Your task to perform on an android device: Add "sony triple a" to the cart on walmart, then select checkout. Image 0: 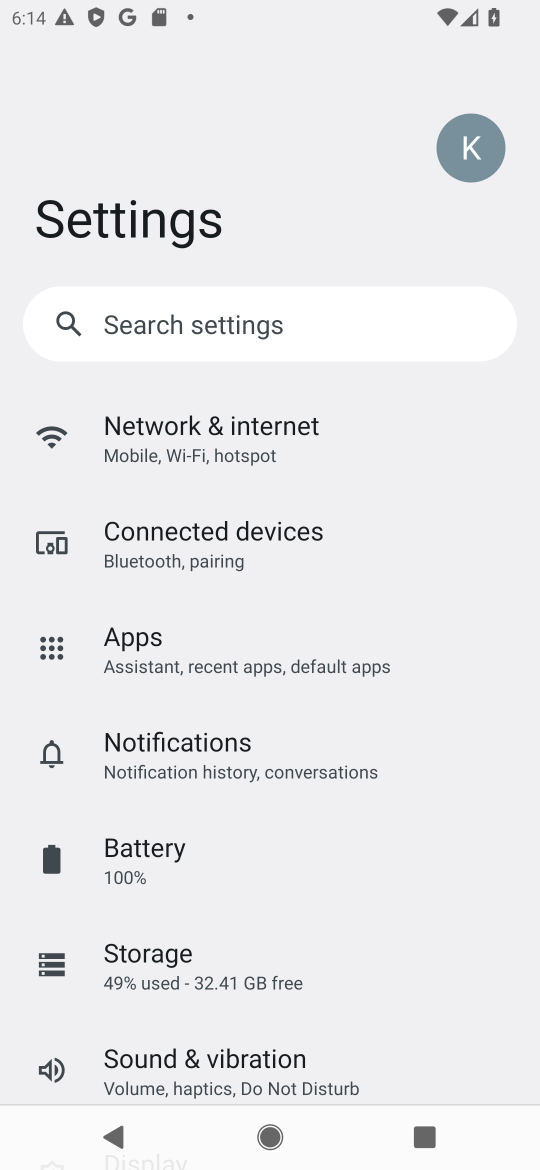
Step 0: press home button
Your task to perform on an android device: Add "sony triple a" to the cart on walmart, then select checkout. Image 1: 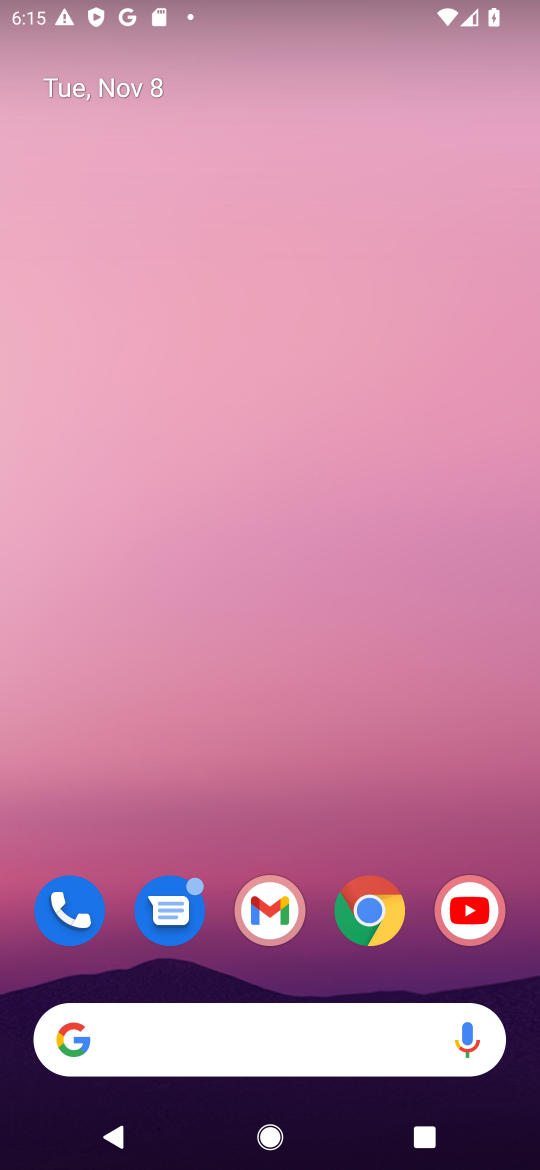
Step 1: click (368, 905)
Your task to perform on an android device: Add "sony triple a" to the cart on walmart, then select checkout. Image 2: 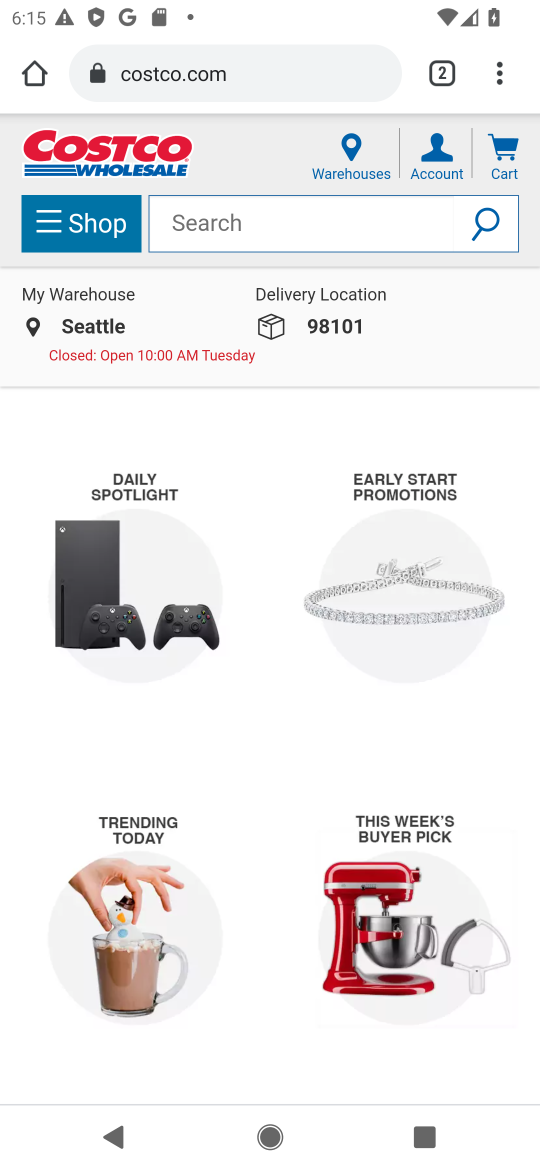
Step 2: click (449, 76)
Your task to perform on an android device: Add "sony triple a" to the cart on walmart, then select checkout. Image 3: 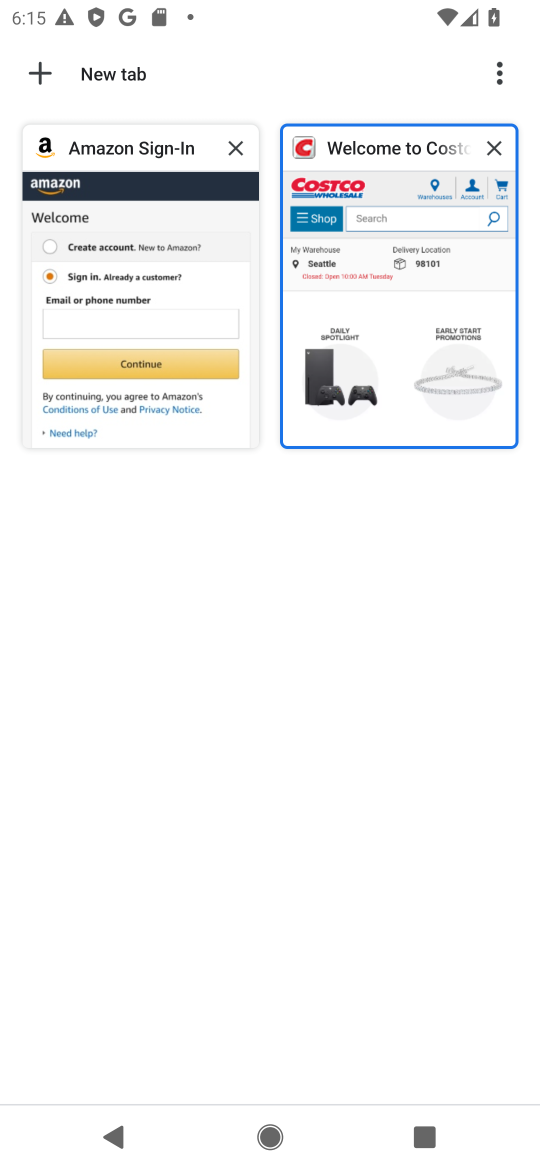
Step 3: click (40, 70)
Your task to perform on an android device: Add "sony triple a" to the cart on walmart, then select checkout. Image 4: 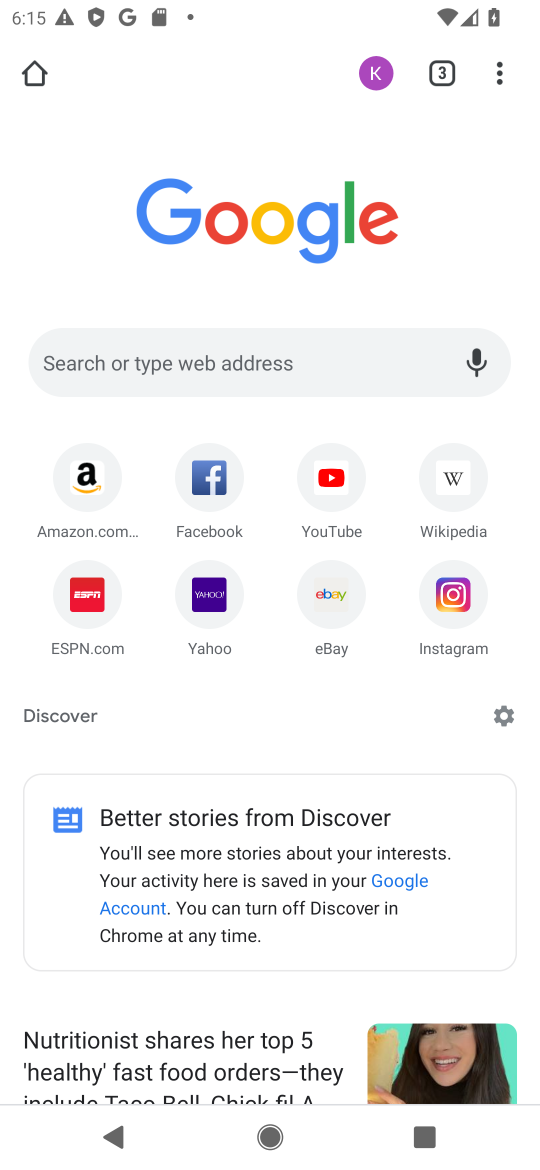
Step 4: click (256, 361)
Your task to perform on an android device: Add "sony triple a" to the cart on walmart, then select checkout. Image 5: 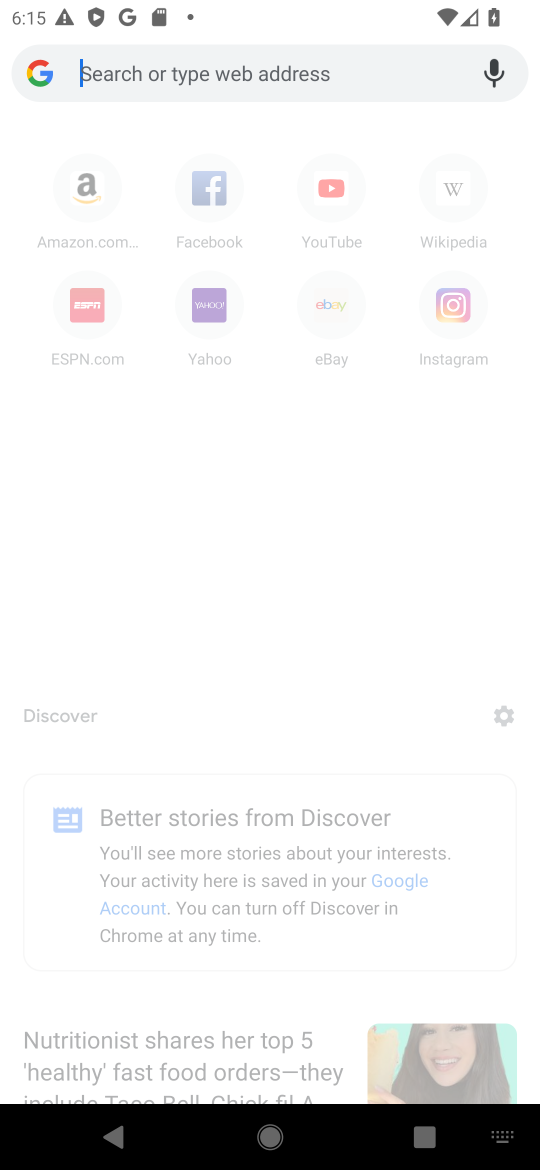
Step 5: type "walmart"
Your task to perform on an android device: Add "sony triple a" to the cart on walmart, then select checkout. Image 6: 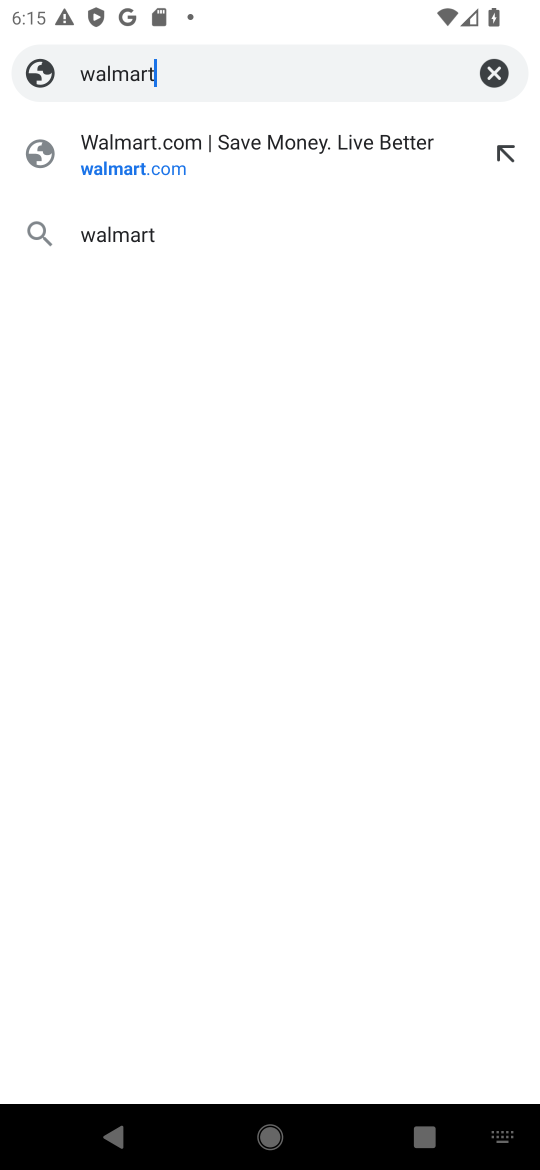
Step 6: click (114, 139)
Your task to perform on an android device: Add "sony triple a" to the cart on walmart, then select checkout. Image 7: 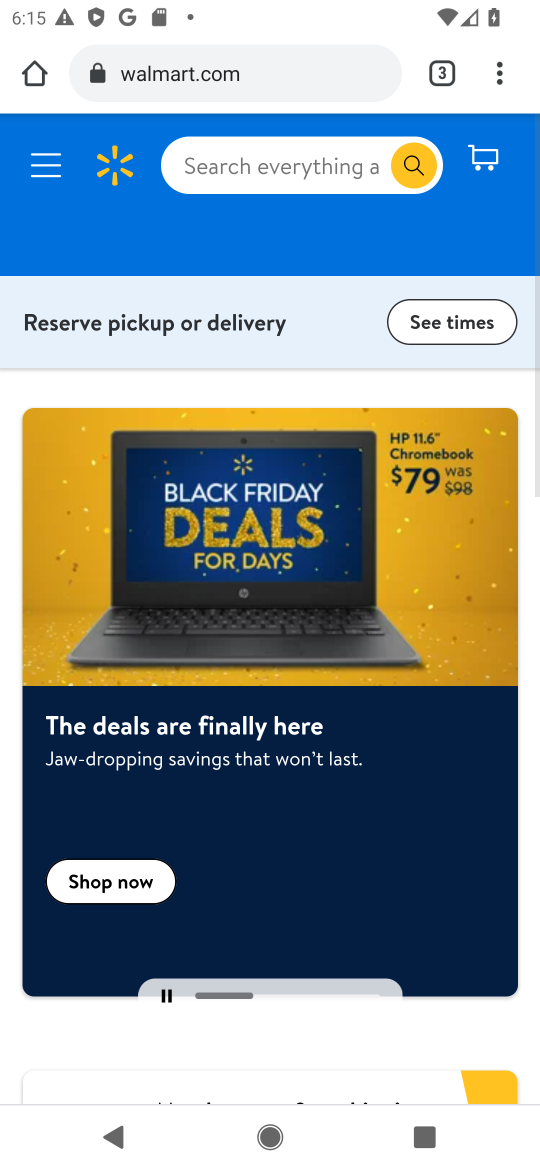
Step 7: click (207, 166)
Your task to perform on an android device: Add "sony triple a" to the cart on walmart, then select checkout. Image 8: 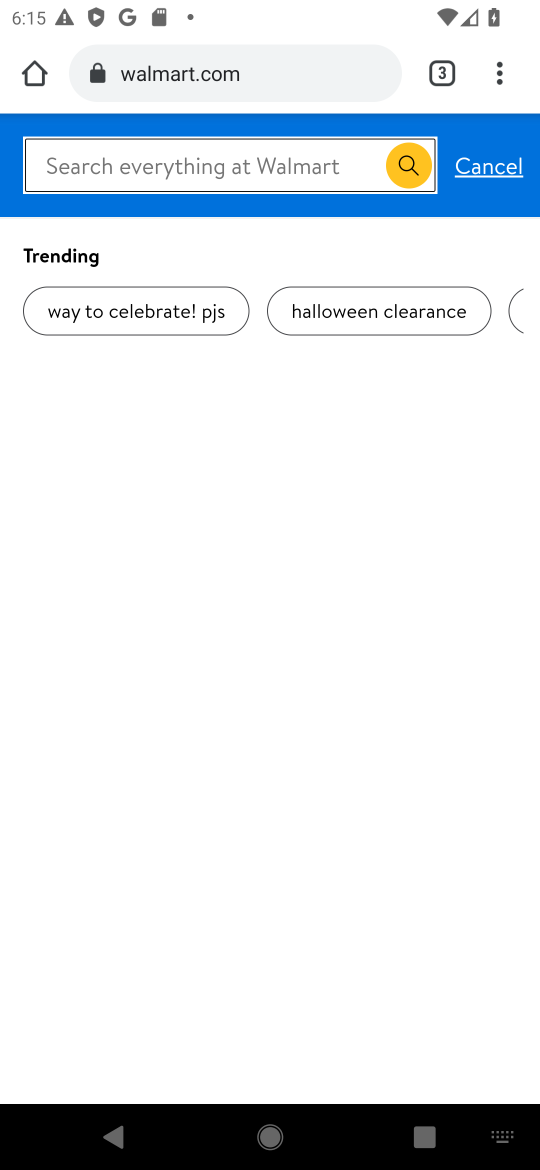
Step 8: type "sony triple a"
Your task to perform on an android device: Add "sony triple a" to the cart on walmart, then select checkout. Image 9: 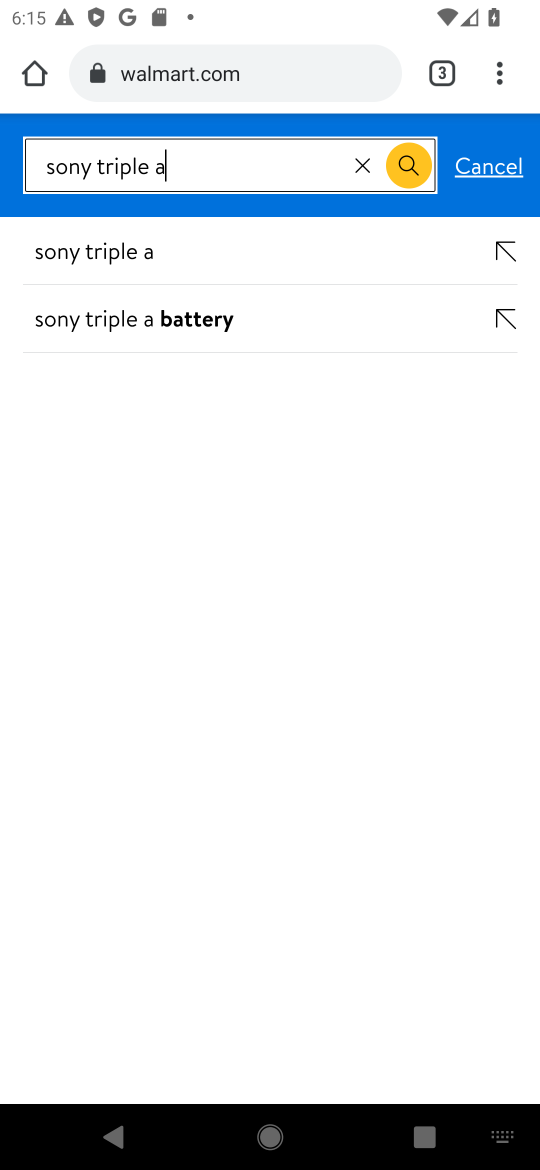
Step 9: click (149, 251)
Your task to perform on an android device: Add "sony triple a" to the cart on walmart, then select checkout. Image 10: 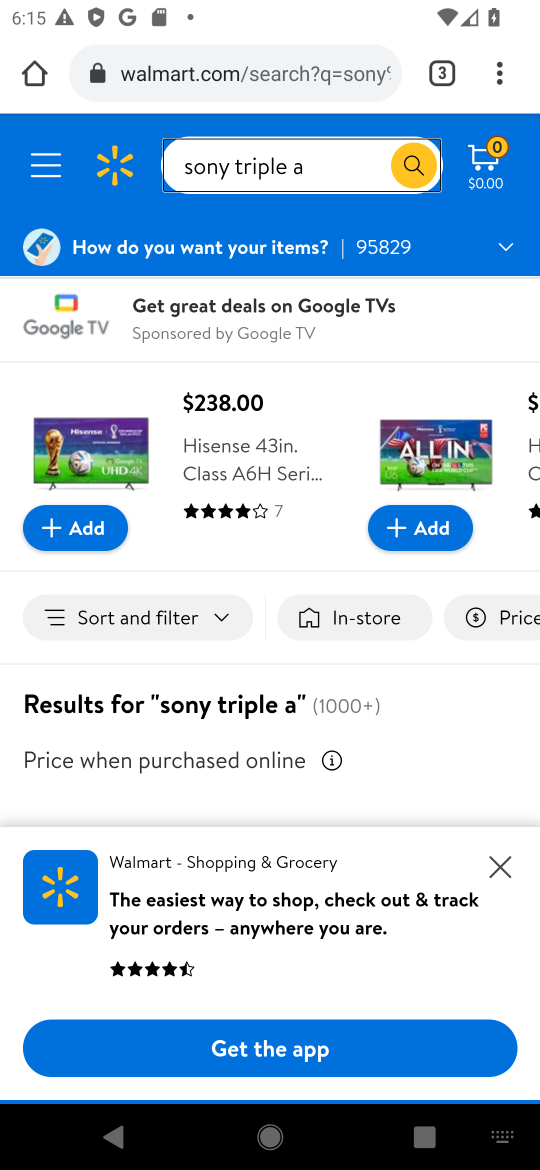
Step 10: click (498, 869)
Your task to perform on an android device: Add "sony triple a" to the cart on walmart, then select checkout. Image 11: 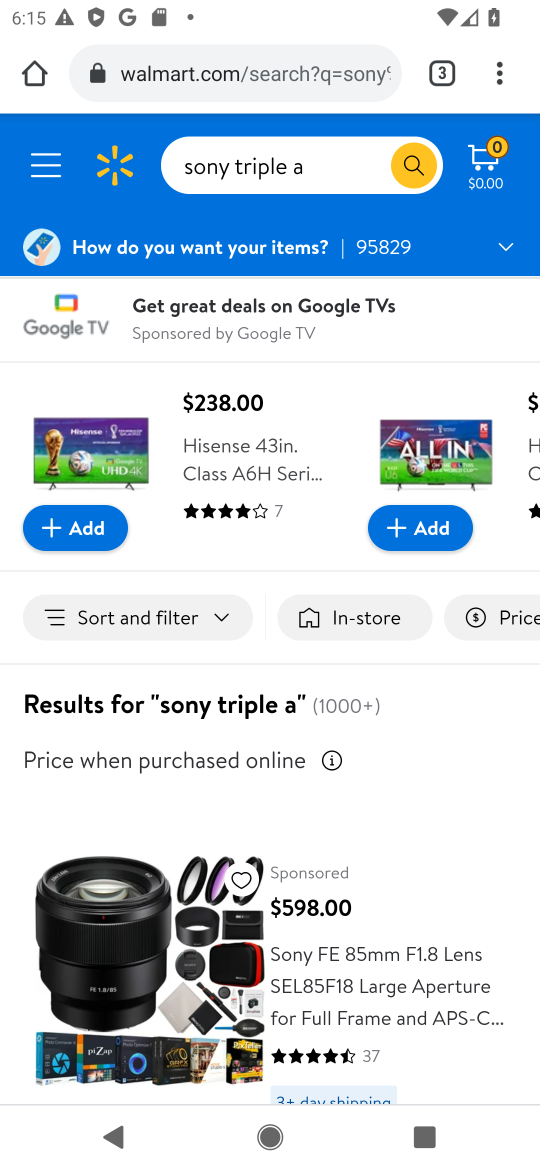
Step 11: drag from (353, 861) to (449, 406)
Your task to perform on an android device: Add "sony triple a" to the cart on walmart, then select checkout. Image 12: 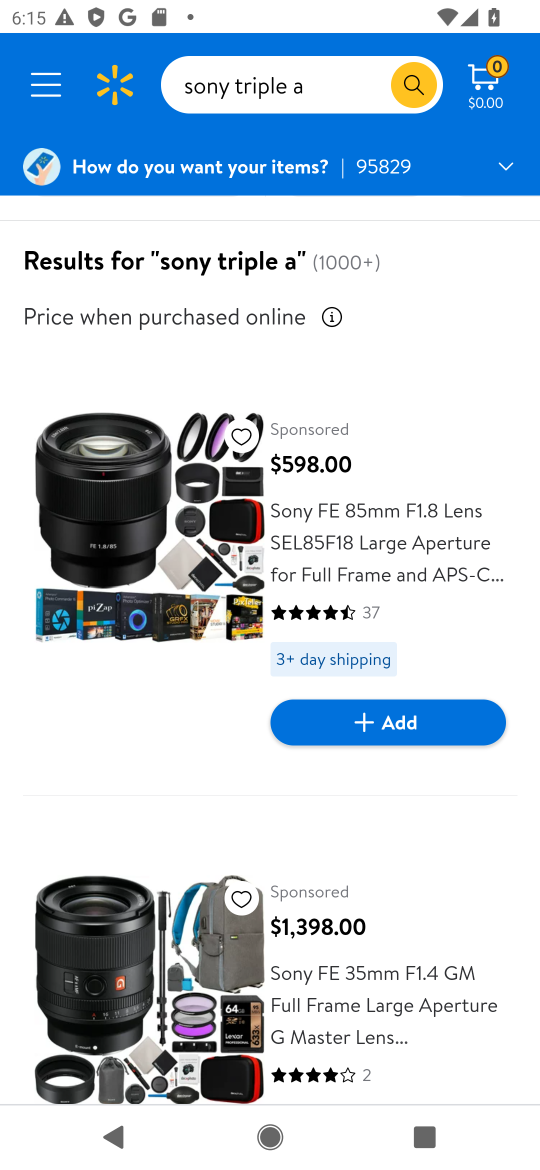
Step 12: drag from (409, 957) to (403, 526)
Your task to perform on an android device: Add "sony triple a" to the cart on walmart, then select checkout. Image 13: 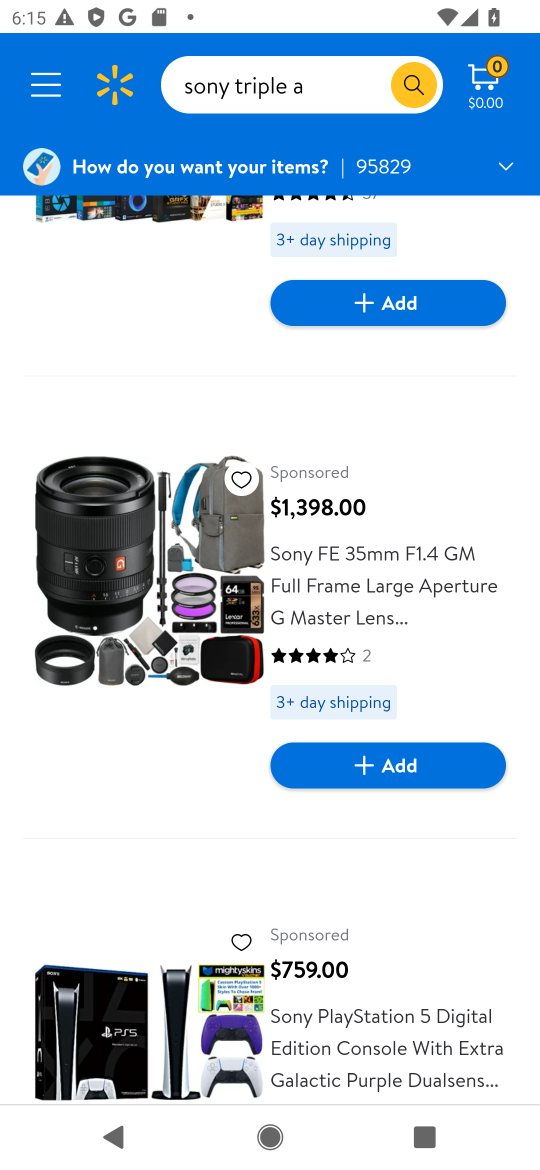
Step 13: drag from (398, 985) to (350, 436)
Your task to perform on an android device: Add "sony triple a" to the cart on walmart, then select checkout. Image 14: 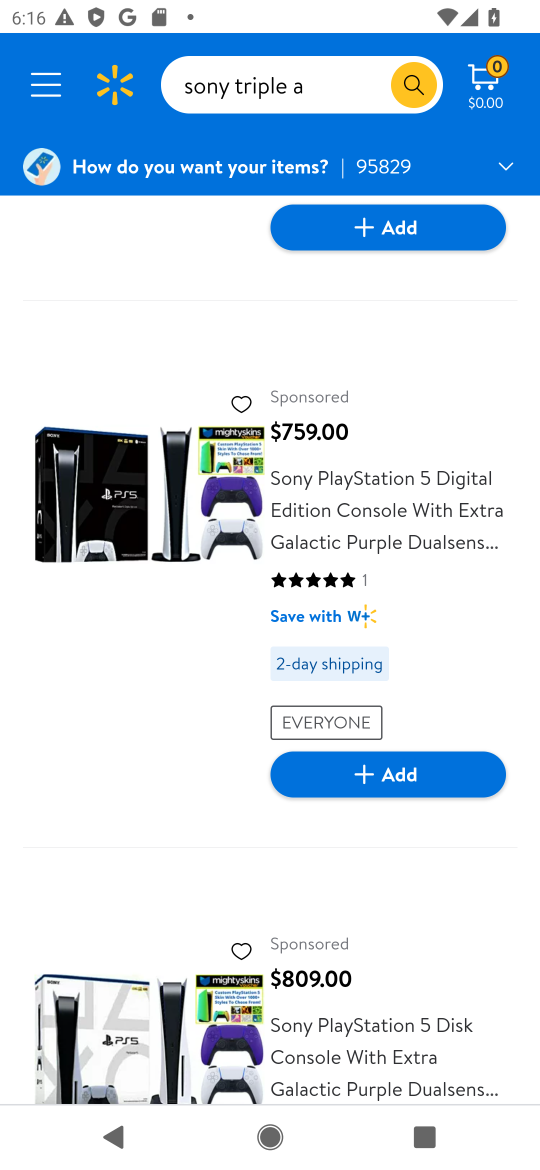
Step 14: click (391, 218)
Your task to perform on an android device: Add "sony triple a" to the cart on walmart, then select checkout. Image 15: 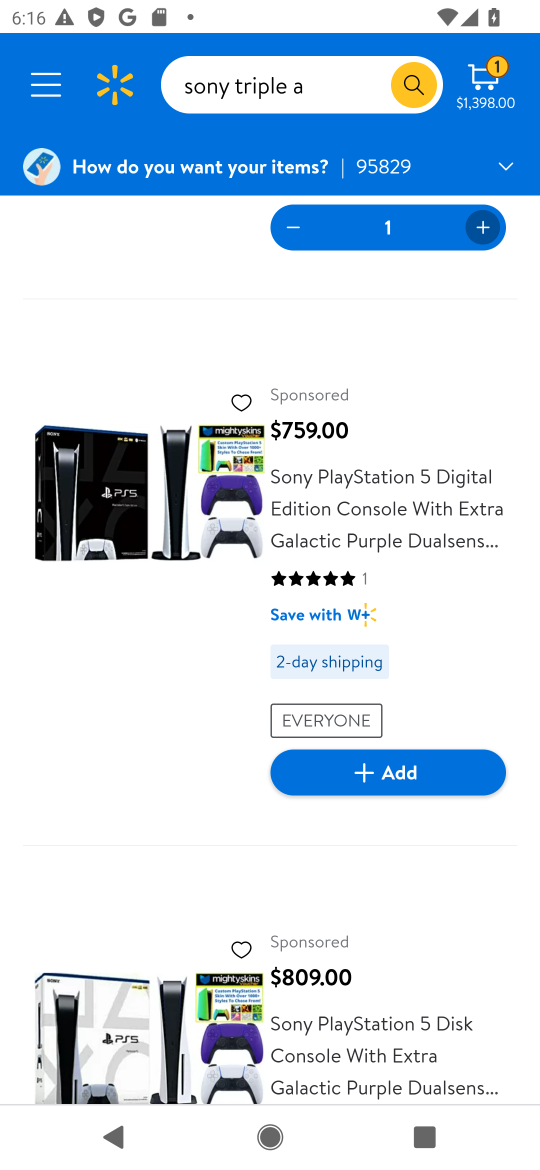
Step 15: task complete